Your task to perform on an android device: Open Google Chrome Image 0: 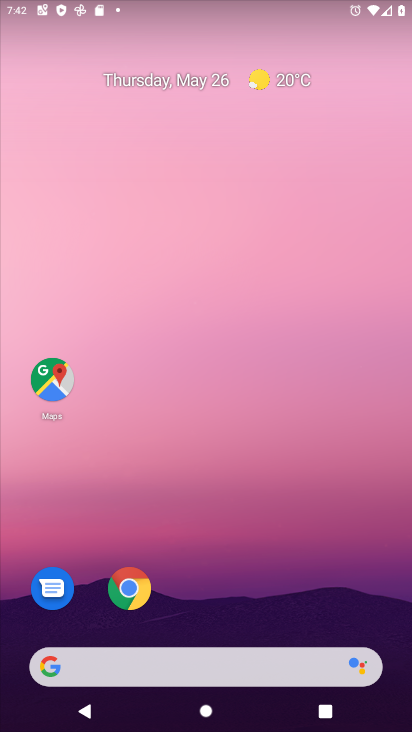
Step 0: drag from (351, 605) to (261, 31)
Your task to perform on an android device: Open Google Chrome Image 1: 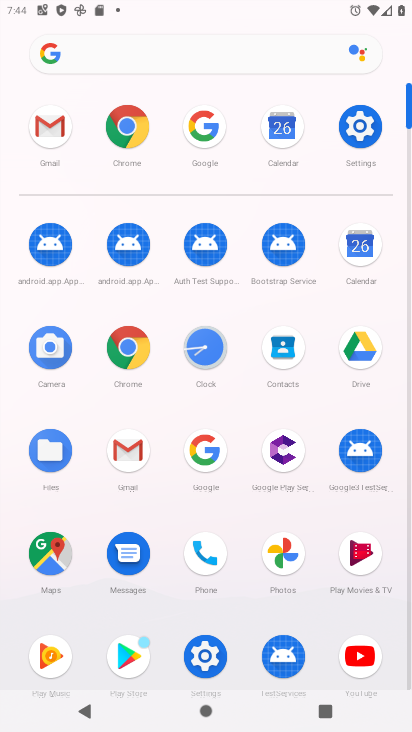
Step 1: click (128, 372)
Your task to perform on an android device: Open Google Chrome Image 2: 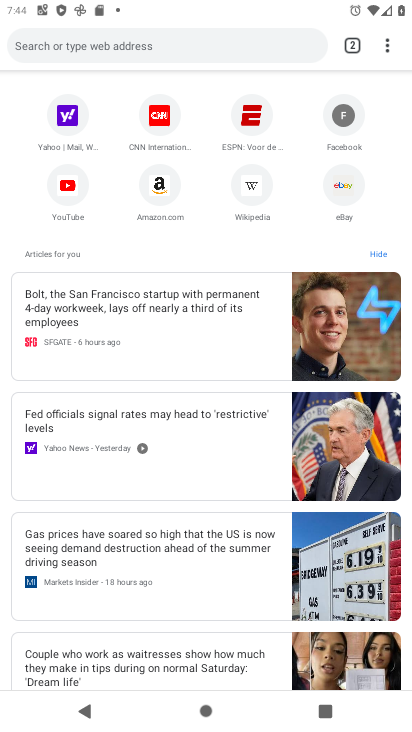
Step 2: task complete